Your task to perform on an android device: find snoozed emails in the gmail app Image 0: 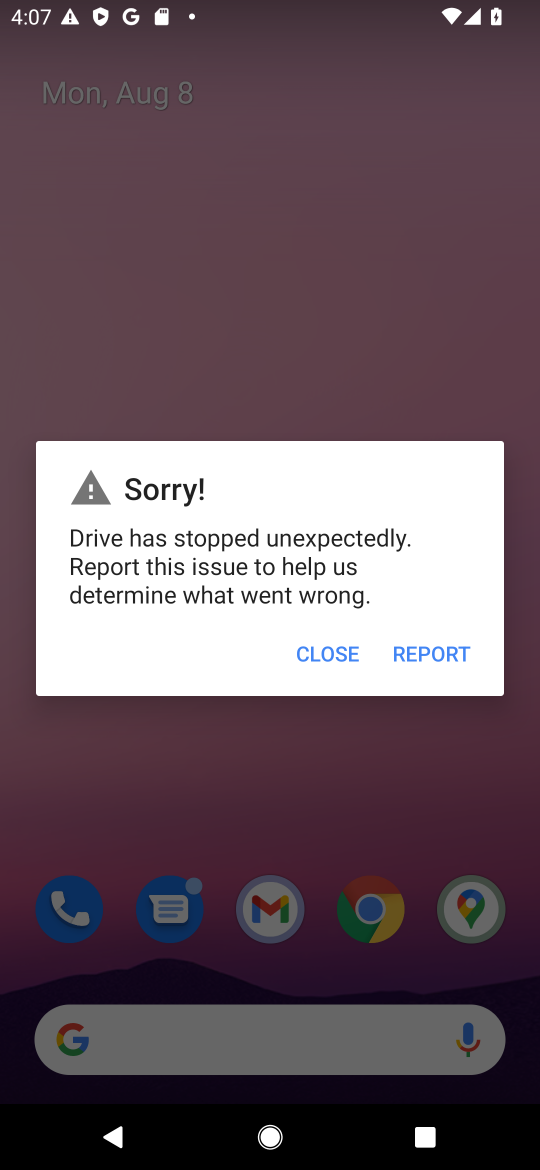
Step 0: press home button
Your task to perform on an android device: find snoozed emails in the gmail app Image 1: 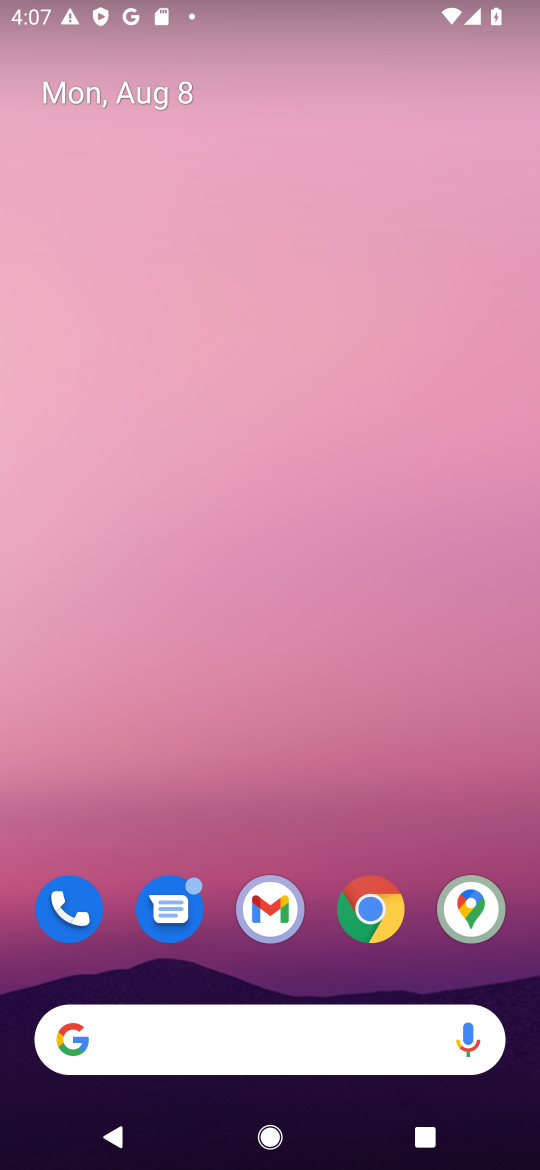
Step 1: drag from (267, 1047) to (386, 106)
Your task to perform on an android device: find snoozed emails in the gmail app Image 2: 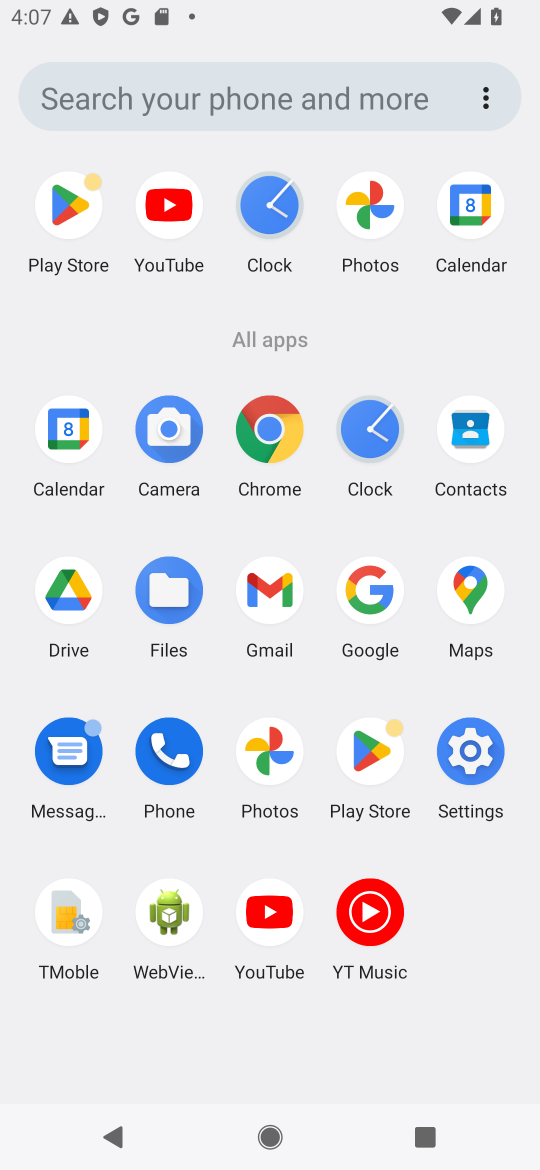
Step 2: click (275, 592)
Your task to perform on an android device: find snoozed emails in the gmail app Image 3: 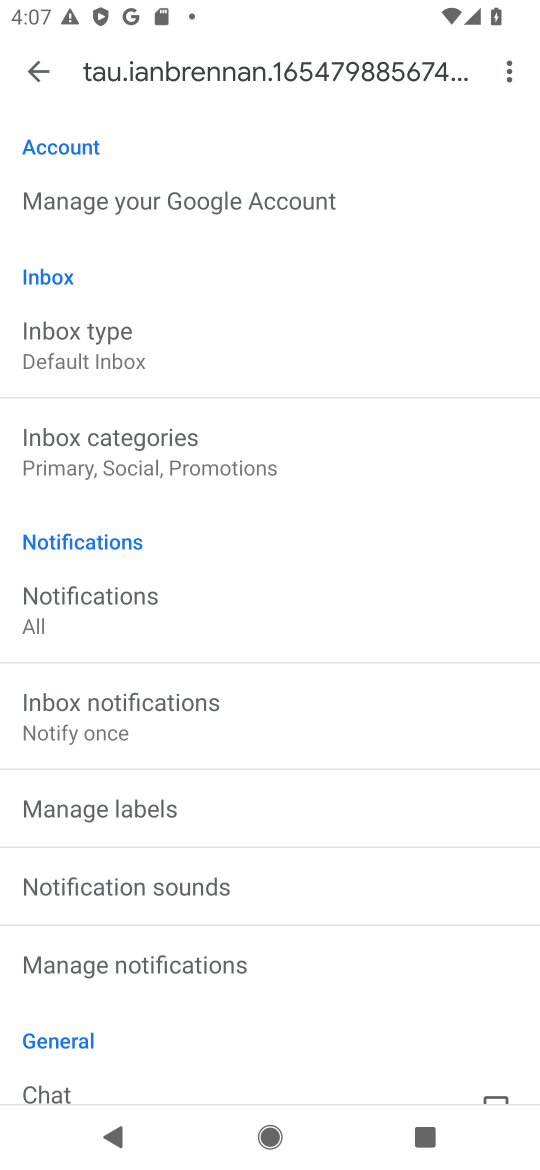
Step 3: click (38, 70)
Your task to perform on an android device: find snoozed emails in the gmail app Image 4: 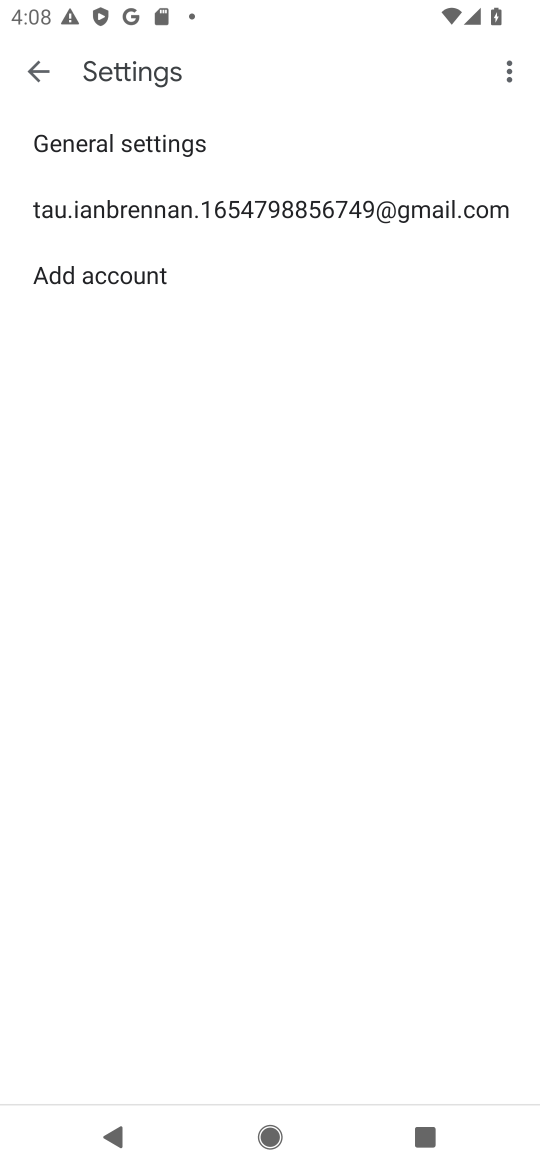
Step 4: click (38, 70)
Your task to perform on an android device: find snoozed emails in the gmail app Image 5: 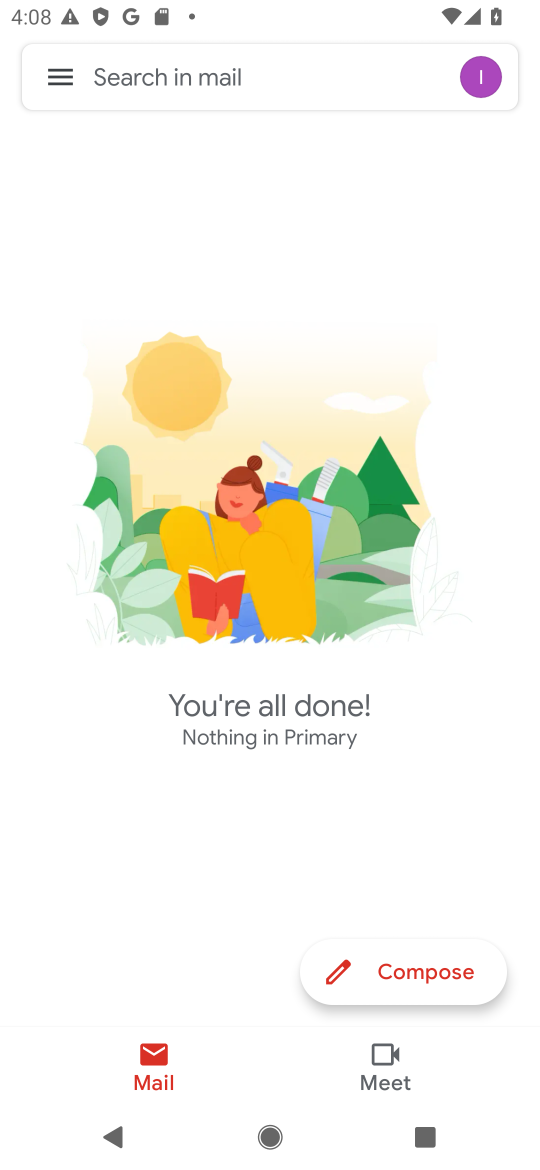
Step 5: click (54, 76)
Your task to perform on an android device: find snoozed emails in the gmail app Image 6: 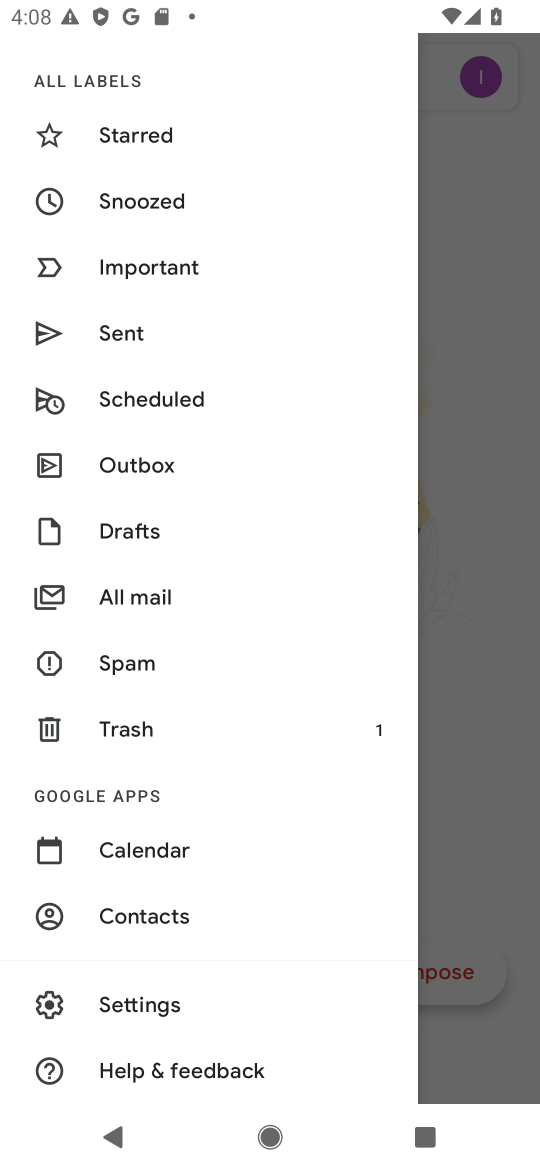
Step 6: click (167, 192)
Your task to perform on an android device: find snoozed emails in the gmail app Image 7: 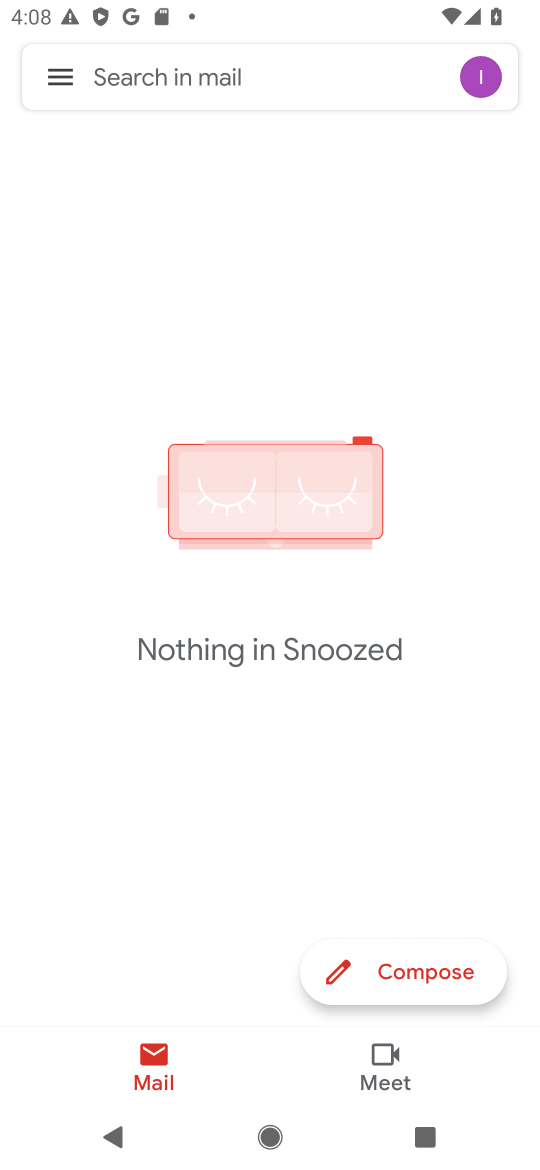
Step 7: task complete